Your task to perform on an android device: Go to location settings Image 0: 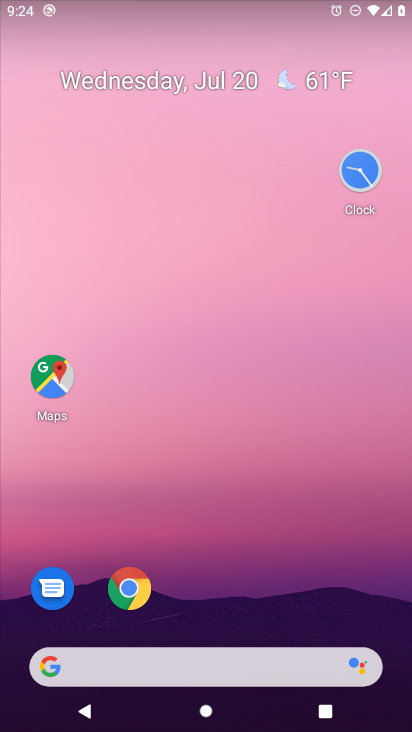
Step 0: drag from (35, 573) to (175, 139)
Your task to perform on an android device: Go to location settings Image 1: 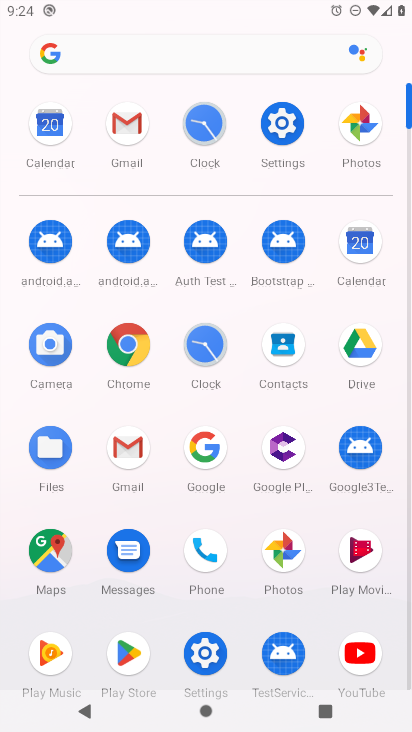
Step 1: click (205, 654)
Your task to perform on an android device: Go to location settings Image 2: 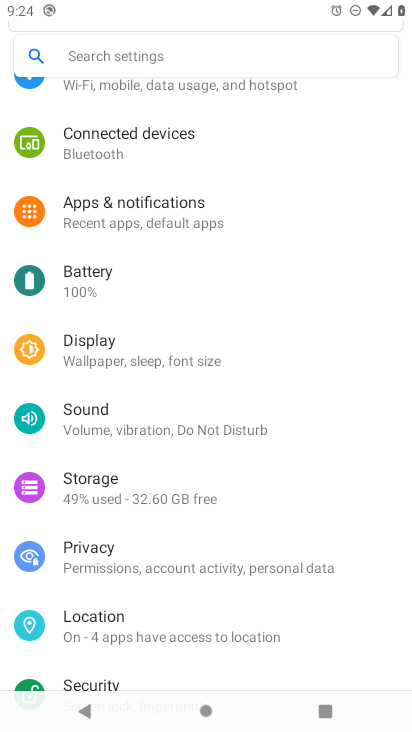
Step 2: click (133, 622)
Your task to perform on an android device: Go to location settings Image 3: 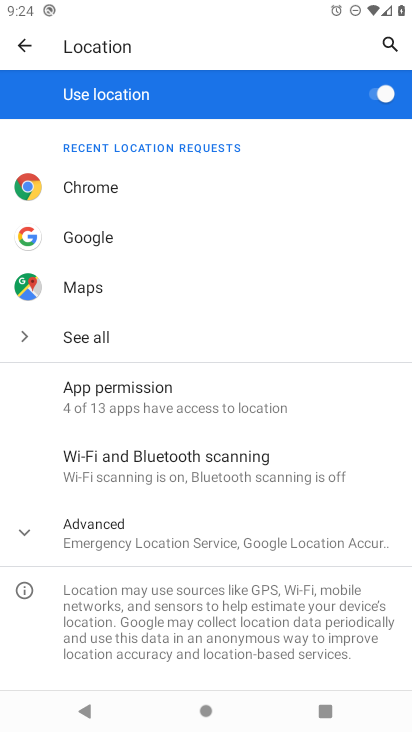
Step 3: task complete